Your task to perform on an android device: make emails show in primary in the gmail app Image 0: 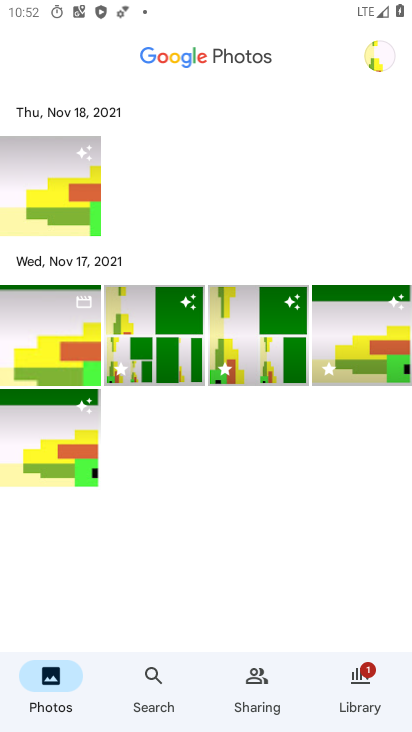
Step 0: press home button
Your task to perform on an android device: make emails show in primary in the gmail app Image 1: 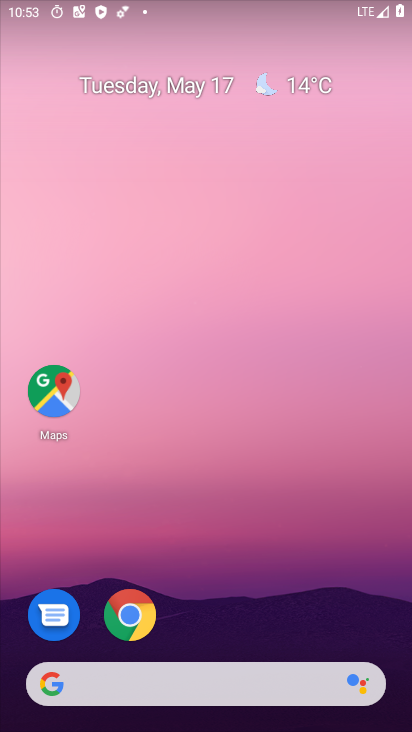
Step 1: drag from (211, 643) to (349, 117)
Your task to perform on an android device: make emails show in primary in the gmail app Image 2: 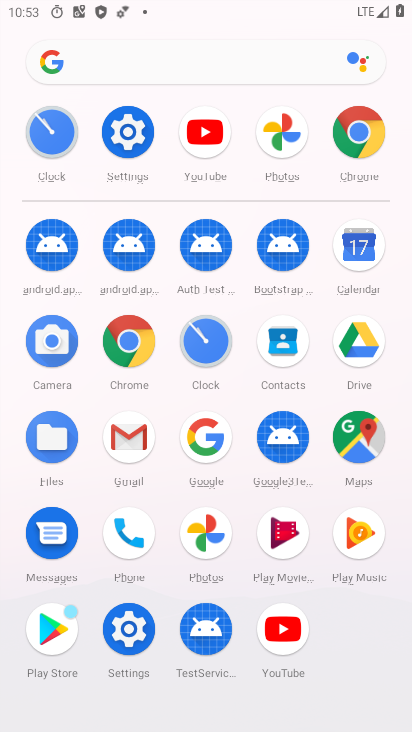
Step 2: click (134, 434)
Your task to perform on an android device: make emails show in primary in the gmail app Image 3: 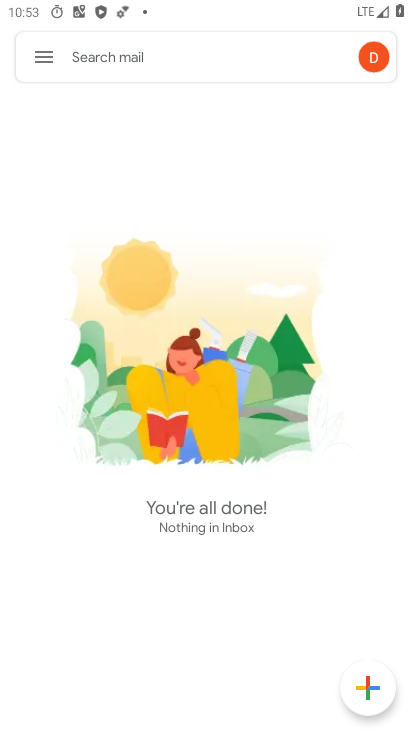
Step 3: click (39, 53)
Your task to perform on an android device: make emails show in primary in the gmail app Image 4: 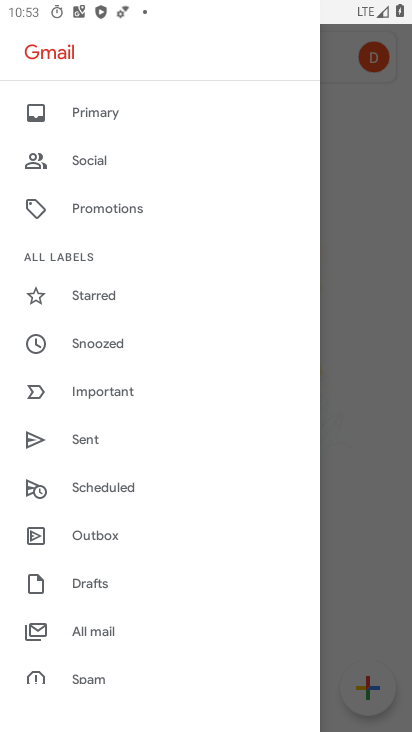
Step 4: drag from (147, 633) to (301, 234)
Your task to perform on an android device: make emails show in primary in the gmail app Image 5: 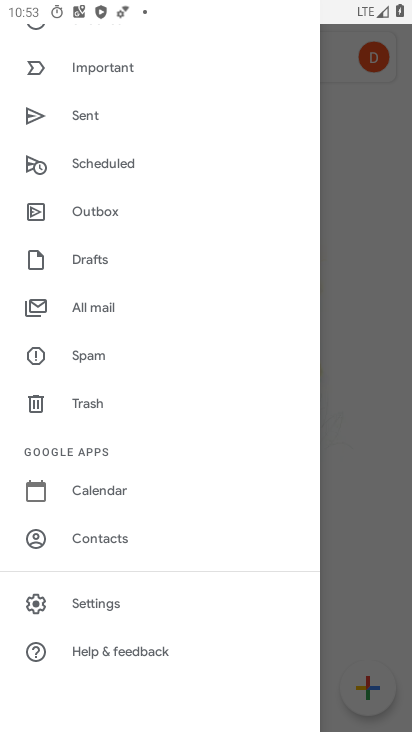
Step 5: click (105, 607)
Your task to perform on an android device: make emails show in primary in the gmail app Image 6: 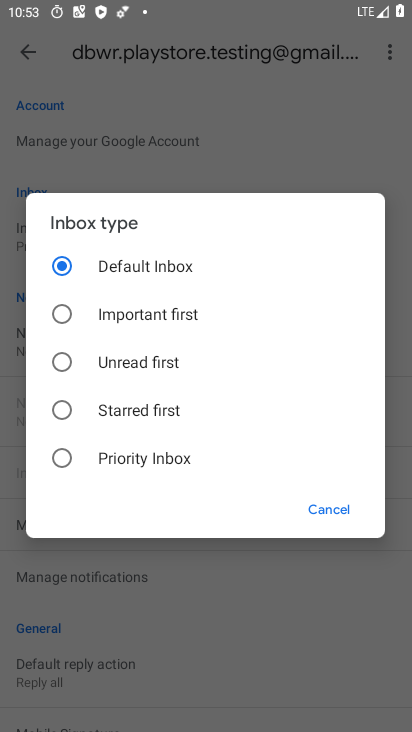
Step 6: click (321, 515)
Your task to perform on an android device: make emails show in primary in the gmail app Image 7: 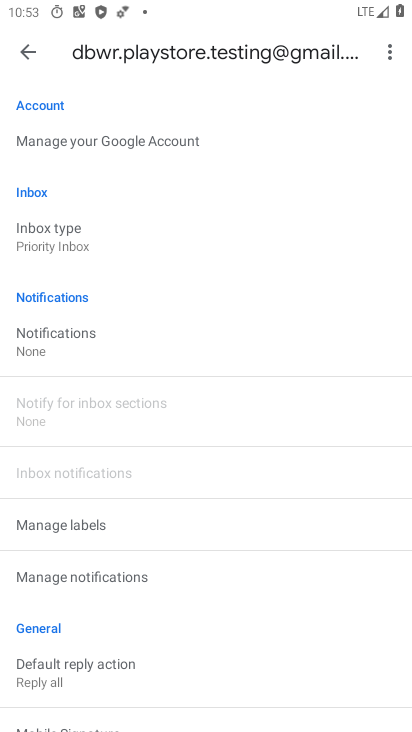
Step 7: task complete